Your task to perform on an android device: Open the Play Movies app and select the watchlist tab. Image 0: 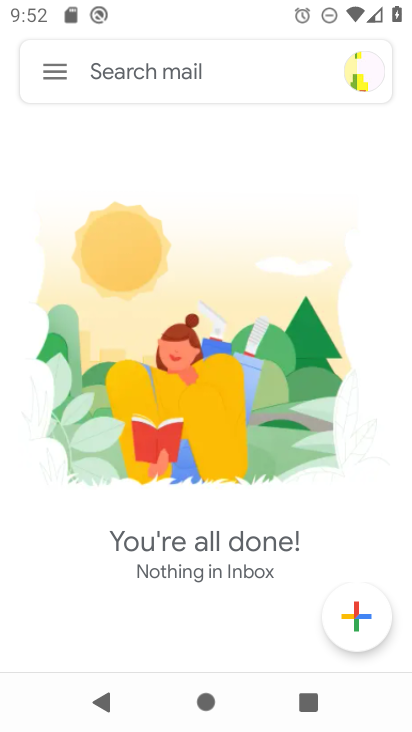
Step 0: press home button
Your task to perform on an android device: Open the Play Movies app and select the watchlist tab. Image 1: 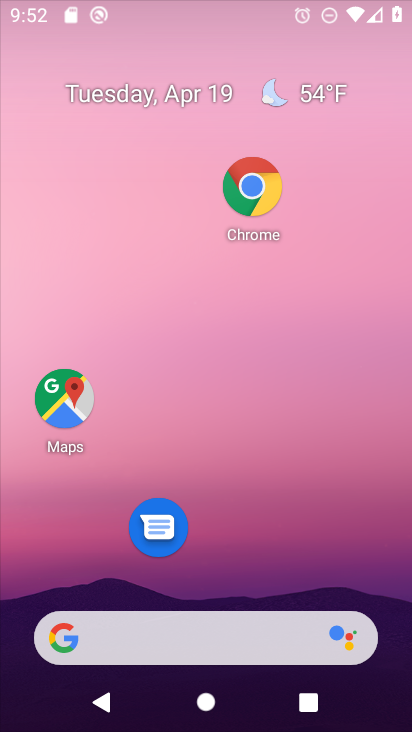
Step 1: drag from (178, 240) to (175, 199)
Your task to perform on an android device: Open the Play Movies app and select the watchlist tab. Image 2: 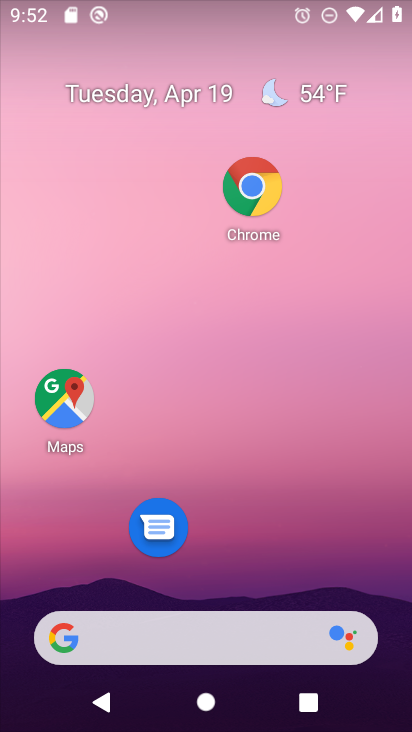
Step 2: drag from (253, 610) to (276, 163)
Your task to perform on an android device: Open the Play Movies app and select the watchlist tab. Image 3: 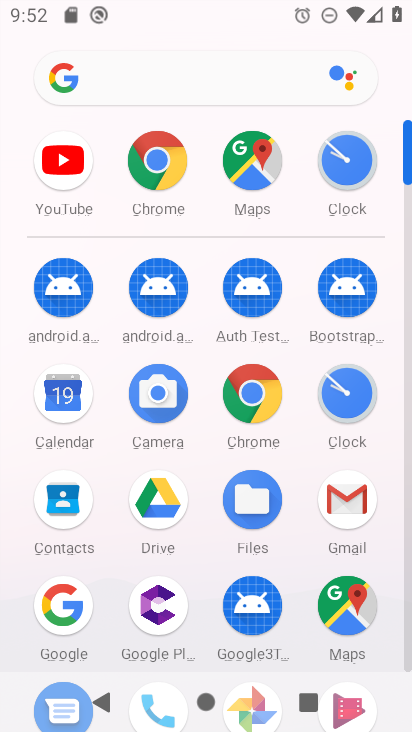
Step 3: drag from (253, 649) to (236, 212)
Your task to perform on an android device: Open the Play Movies app and select the watchlist tab. Image 4: 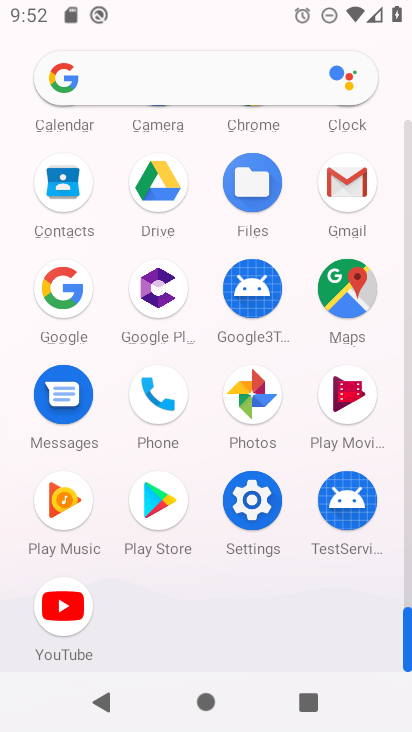
Step 4: click (348, 395)
Your task to perform on an android device: Open the Play Movies app and select the watchlist tab. Image 5: 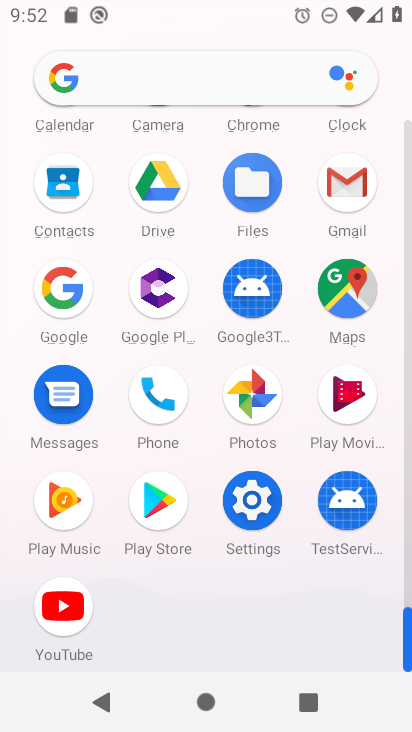
Step 5: click (348, 395)
Your task to perform on an android device: Open the Play Movies app and select the watchlist tab. Image 6: 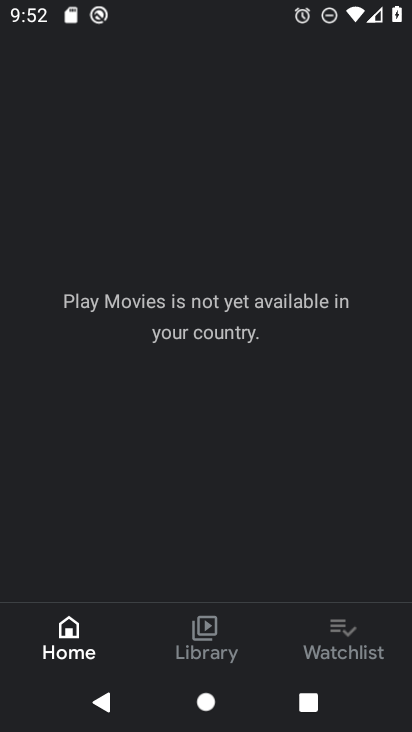
Step 6: click (347, 624)
Your task to perform on an android device: Open the Play Movies app and select the watchlist tab. Image 7: 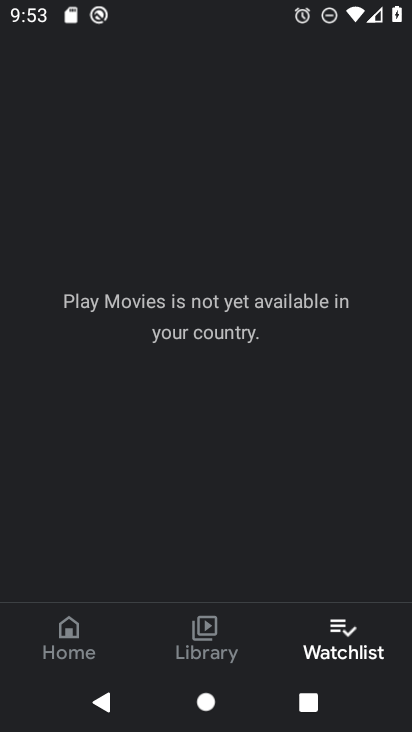
Step 7: task complete